Your task to perform on an android device: Open the phone app and click the voicemail tab. Image 0: 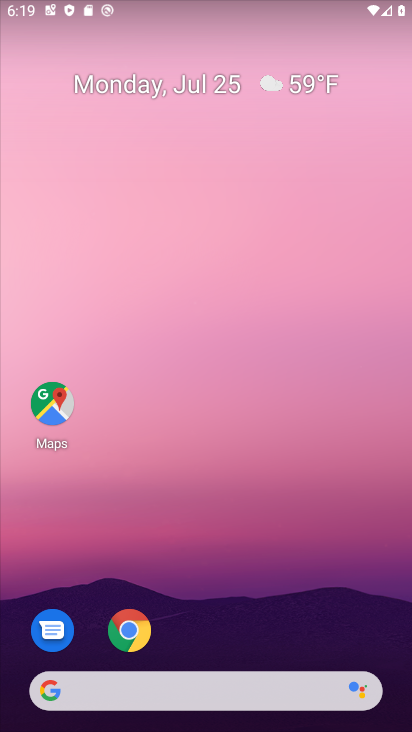
Step 0: drag from (205, 639) to (270, 116)
Your task to perform on an android device: Open the phone app and click the voicemail tab. Image 1: 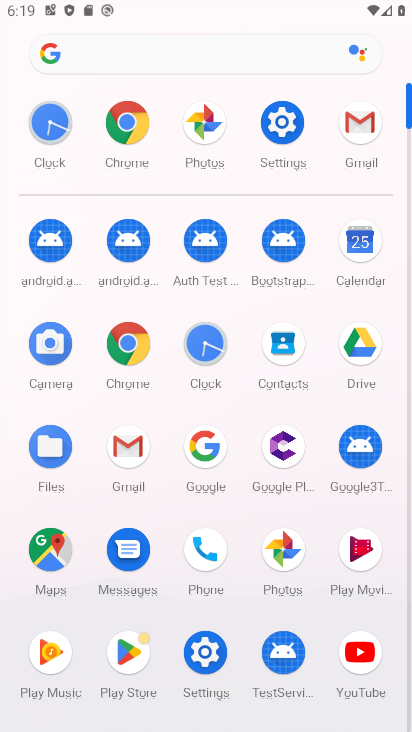
Step 1: click (208, 554)
Your task to perform on an android device: Open the phone app and click the voicemail tab. Image 2: 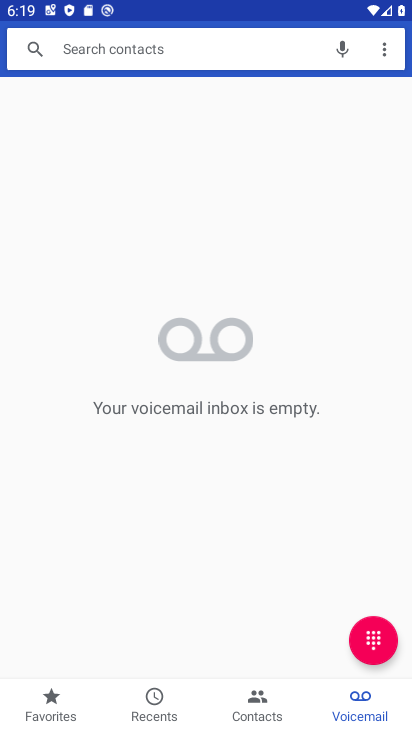
Step 2: click (352, 699)
Your task to perform on an android device: Open the phone app and click the voicemail tab. Image 3: 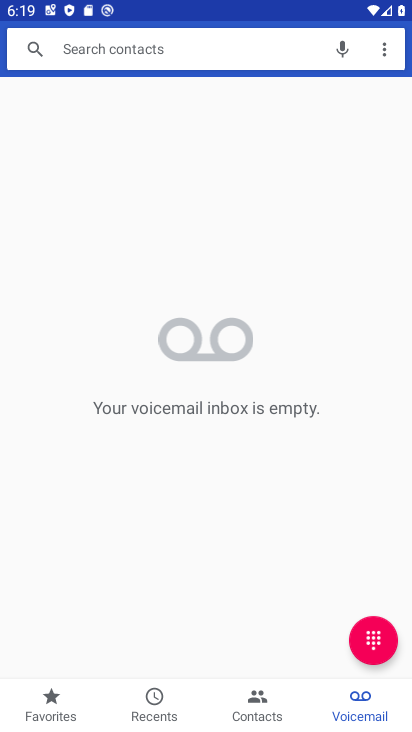
Step 3: task complete